Your task to perform on an android device: Open CNN.com Image 0: 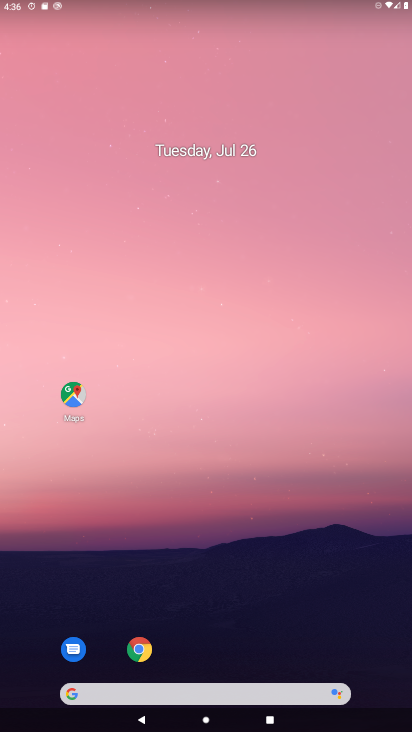
Step 0: drag from (371, 613) to (220, 11)
Your task to perform on an android device: Open CNN.com Image 1: 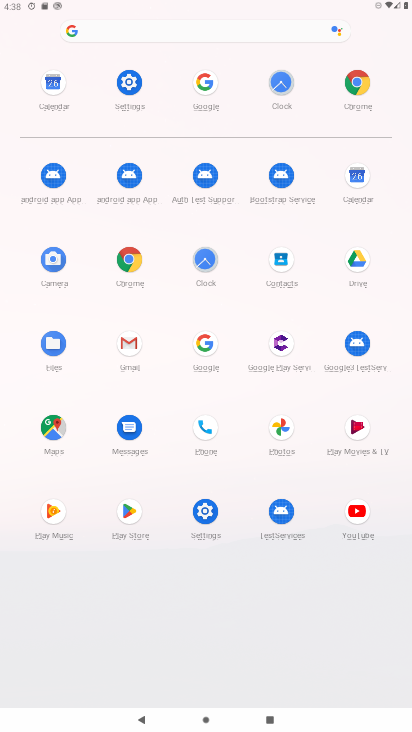
Step 1: click (196, 343)
Your task to perform on an android device: Open CNN.com Image 2: 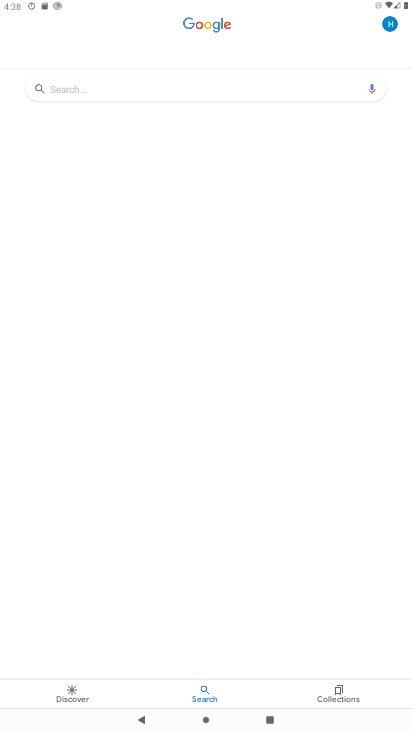
Step 2: click (95, 81)
Your task to perform on an android device: Open CNN.com Image 3: 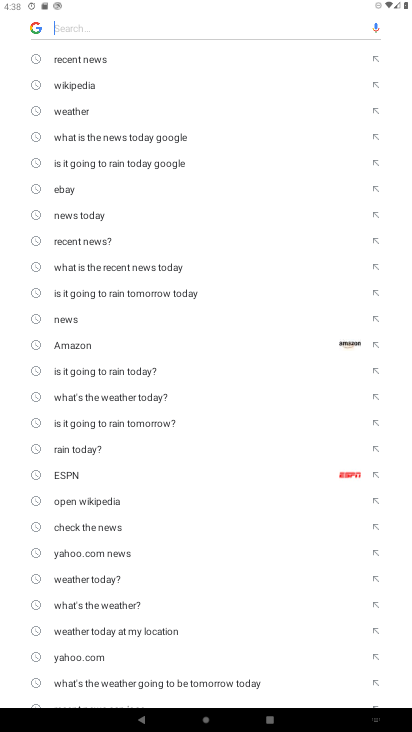
Step 3: type "cnn.com"
Your task to perform on an android device: Open CNN.com Image 4: 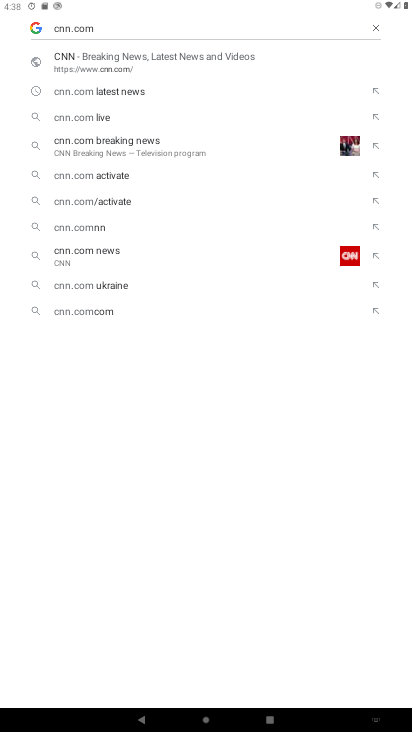
Step 4: click (110, 55)
Your task to perform on an android device: Open CNN.com Image 5: 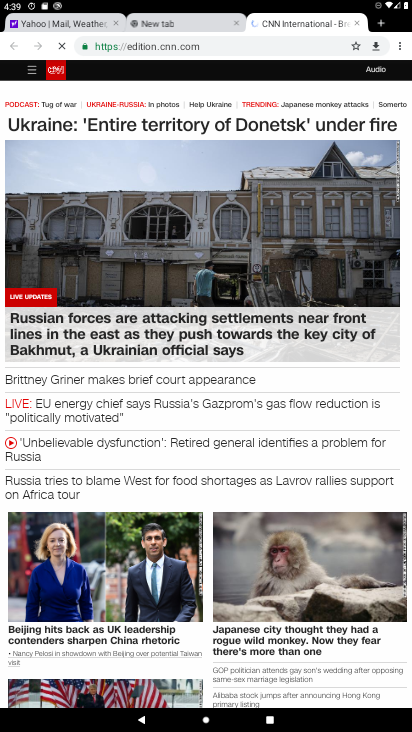
Step 5: task complete